Your task to perform on an android device: Open Maps and search for coffee Image 0: 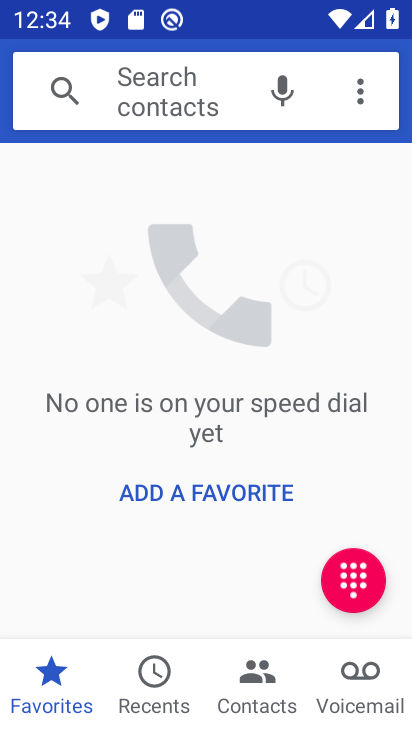
Step 0: press home button
Your task to perform on an android device: Open Maps and search for coffee Image 1: 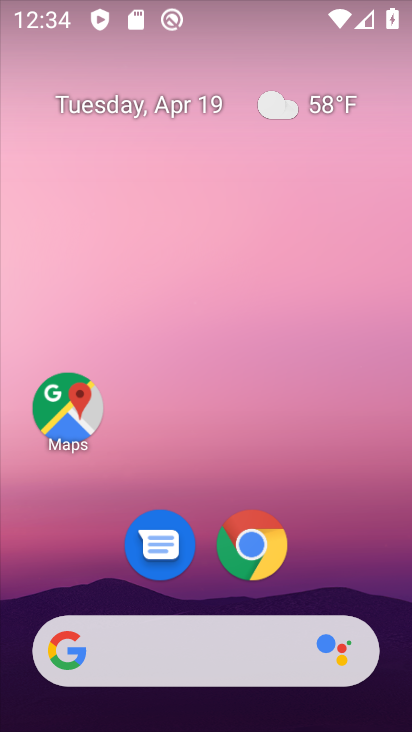
Step 1: click (101, 431)
Your task to perform on an android device: Open Maps and search for coffee Image 2: 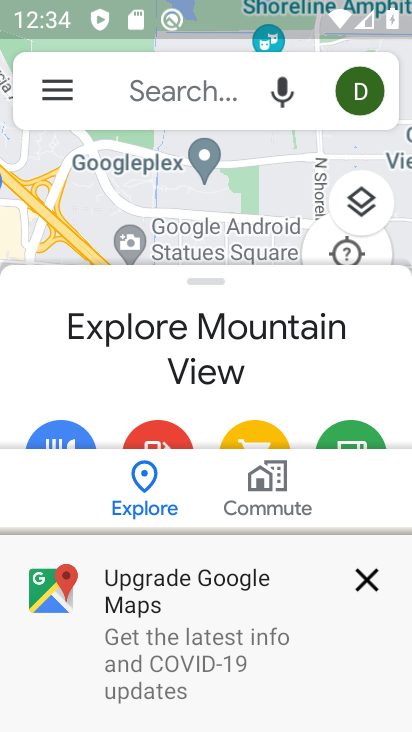
Step 2: click (149, 70)
Your task to perform on an android device: Open Maps and search for coffee Image 3: 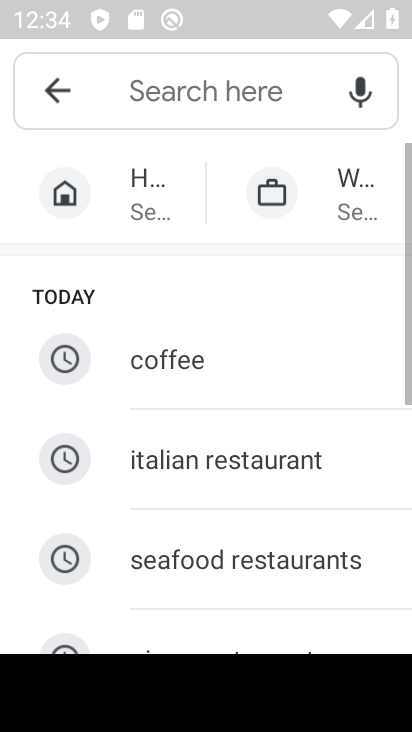
Step 3: click (192, 365)
Your task to perform on an android device: Open Maps and search for coffee Image 4: 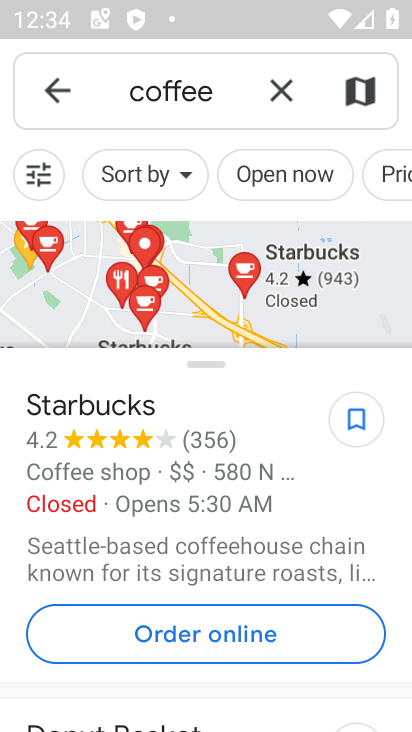
Step 4: task complete